Your task to perform on an android device: check the backup settings in the google photos Image 0: 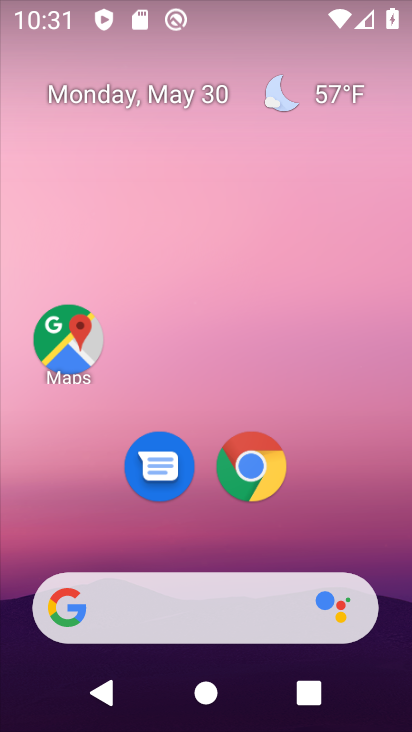
Step 0: drag from (59, 553) to (172, 0)
Your task to perform on an android device: check the backup settings in the google photos Image 1: 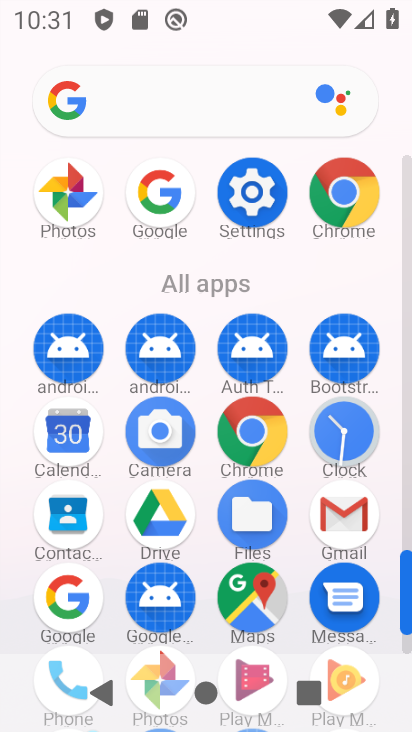
Step 1: drag from (84, 610) to (150, 365)
Your task to perform on an android device: check the backup settings in the google photos Image 2: 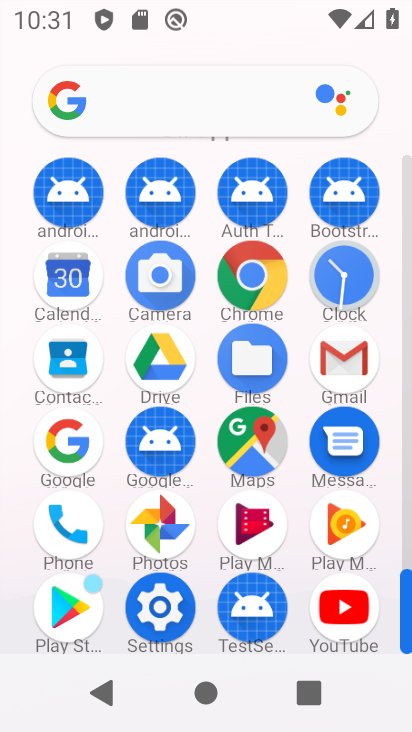
Step 2: click (159, 516)
Your task to perform on an android device: check the backup settings in the google photos Image 3: 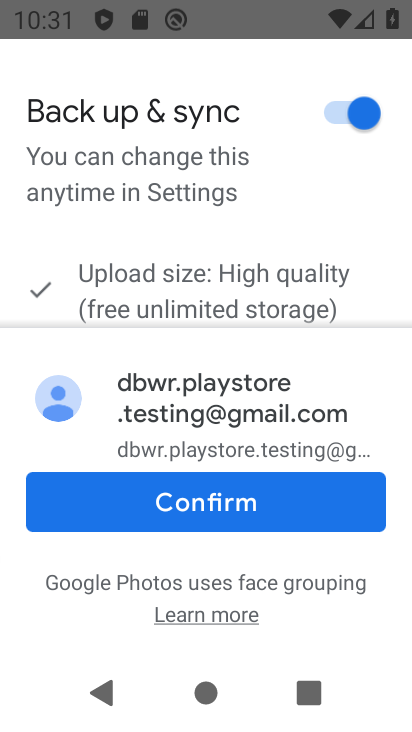
Step 3: click (243, 495)
Your task to perform on an android device: check the backup settings in the google photos Image 4: 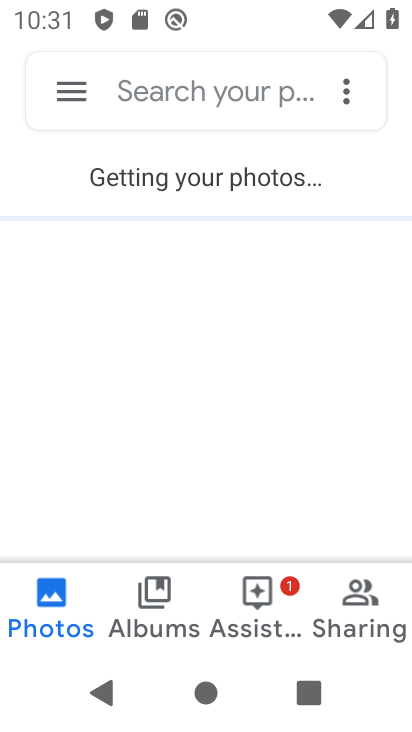
Step 4: click (66, 85)
Your task to perform on an android device: check the backup settings in the google photos Image 5: 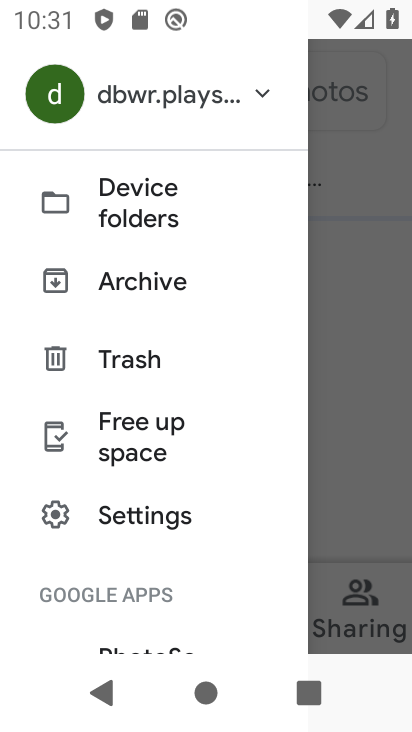
Step 5: click (113, 497)
Your task to perform on an android device: check the backup settings in the google photos Image 6: 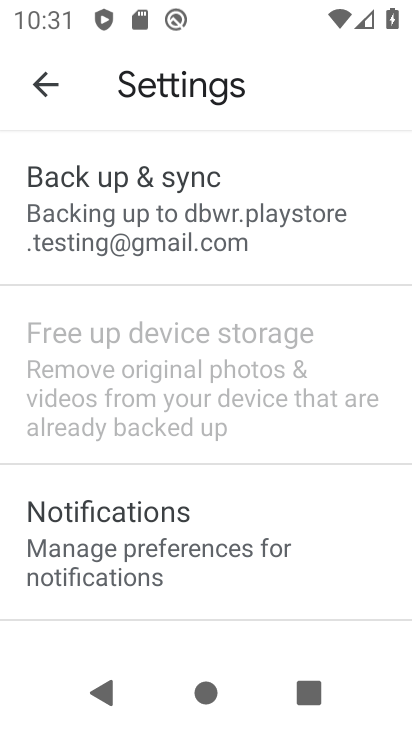
Step 6: click (220, 272)
Your task to perform on an android device: check the backup settings in the google photos Image 7: 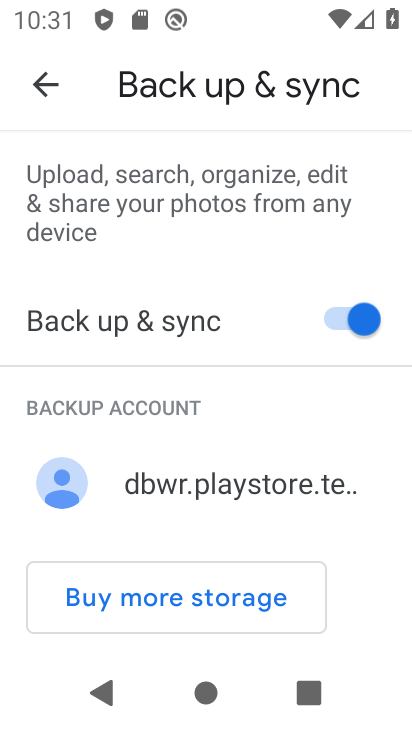
Step 7: task complete